Your task to perform on an android device: see tabs open on other devices in the chrome app Image 0: 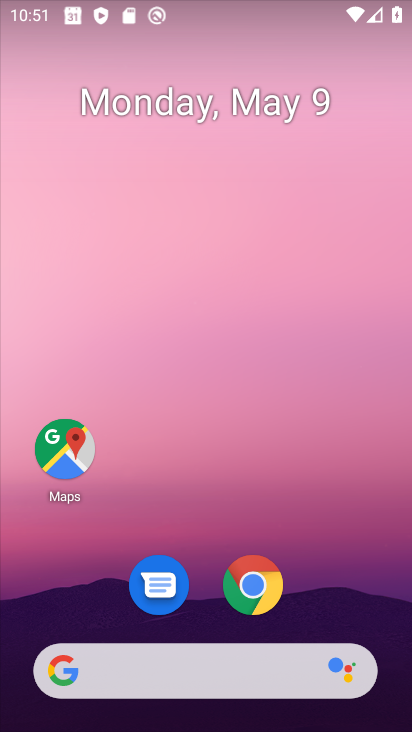
Step 0: click (255, 568)
Your task to perform on an android device: see tabs open on other devices in the chrome app Image 1: 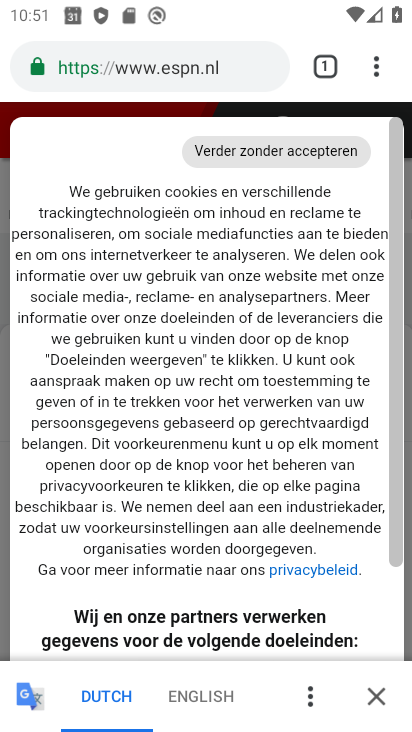
Step 1: click (375, 61)
Your task to perform on an android device: see tabs open on other devices in the chrome app Image 2: 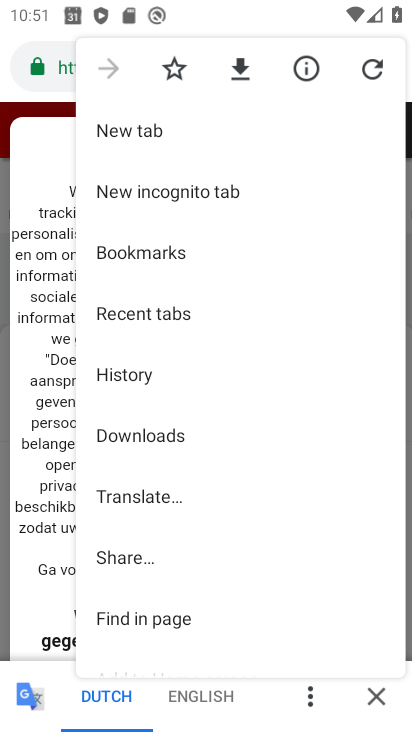
Step 2: click (171, 318)
Your task to perform on an android device: see tabs open on other devices in the chrome app Image 3: 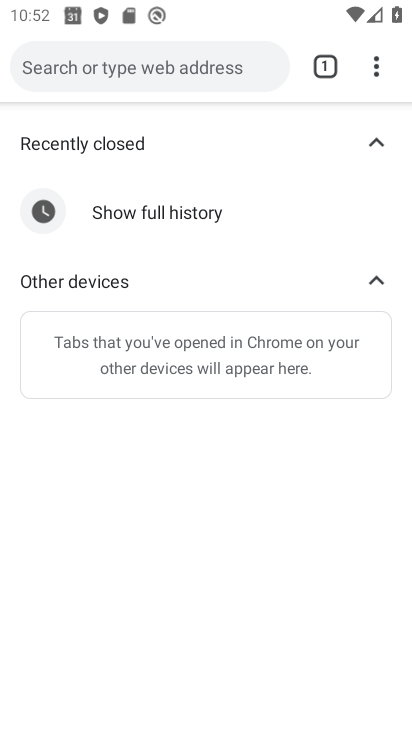
Step 3: task complete